Your task to perform on an android device: Open location settings Image 0: 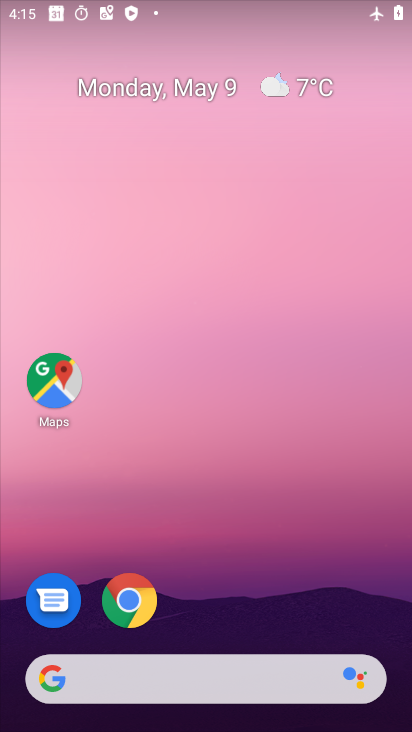
Step 0: drag from (287, 627) to (182, 74)
Your task to perform on an android device: Open location settings Image 1: 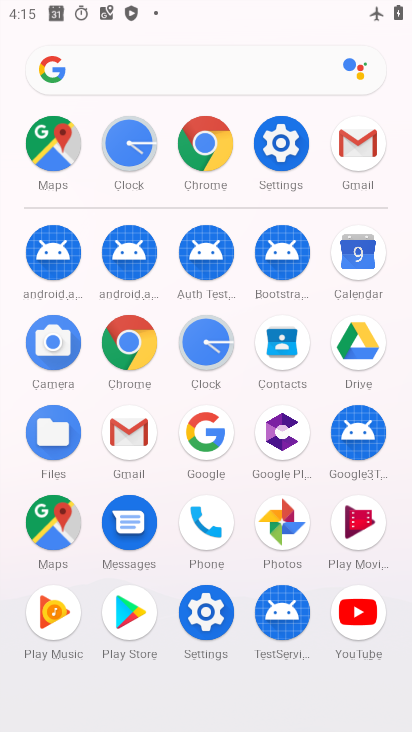
Step 1: click (276, 133)
Your task to perform on an android device: Open location settings Image 2: 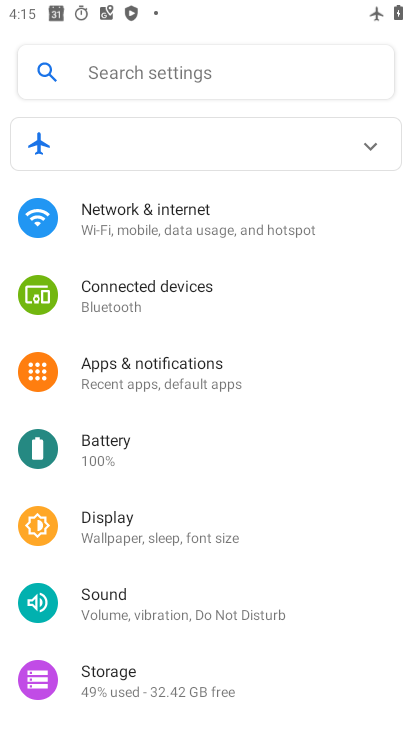
Step 2: drag from (199, 607) to (260, 204)
Your task to perform on an android device: Open location settings Image 3: 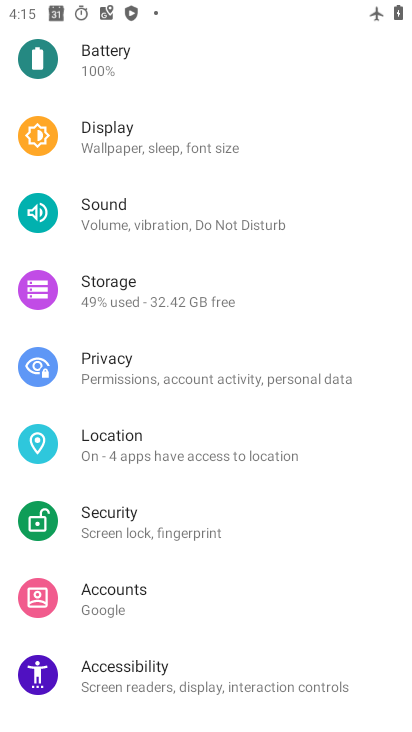
Step 3: click (142, 454)
Your task to perform on an android device: Open location settings Image 4: 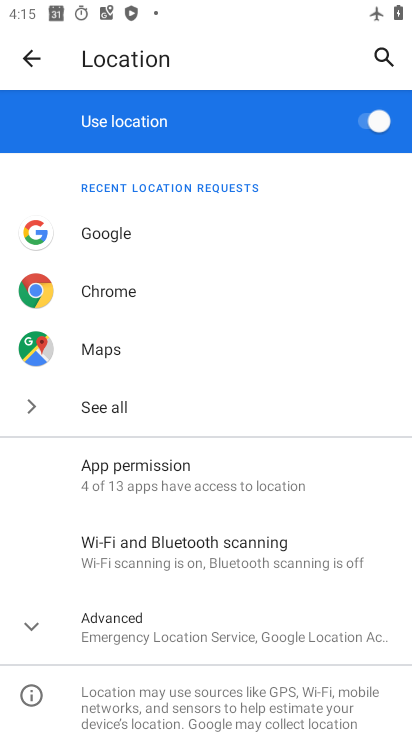
Step 4: task complete